Your task to perform on an android device: check the backup settings in the google photos Image 0: 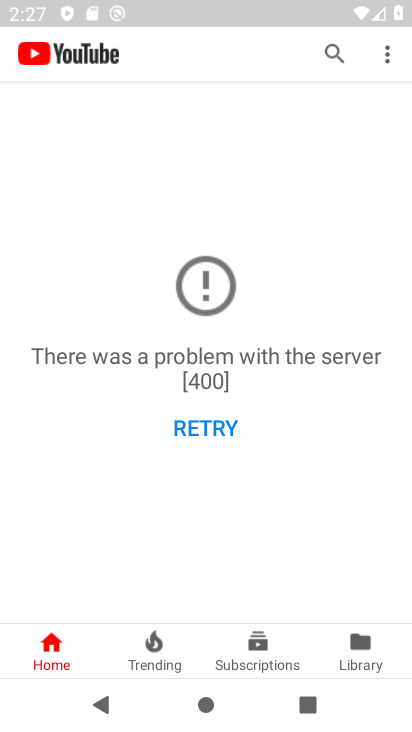
Step 0: press home button
Your task to perform on an android device: check the backup settings in the google photos Image 1: 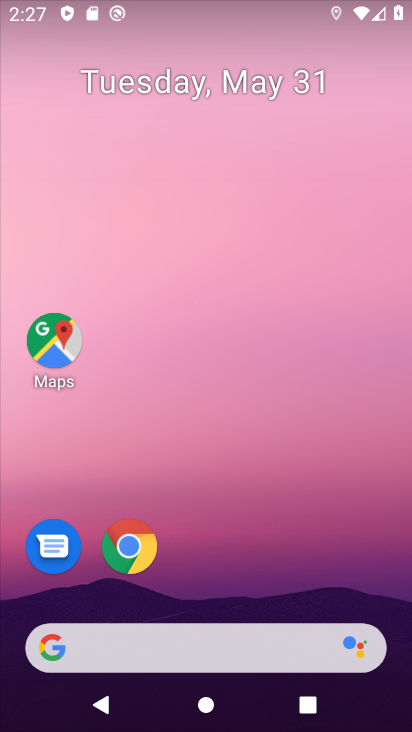
Step 1: drag from (246, 540) to (281, 129)
Your task to perform on an android device: check the backup settings in the google photos Image 2: 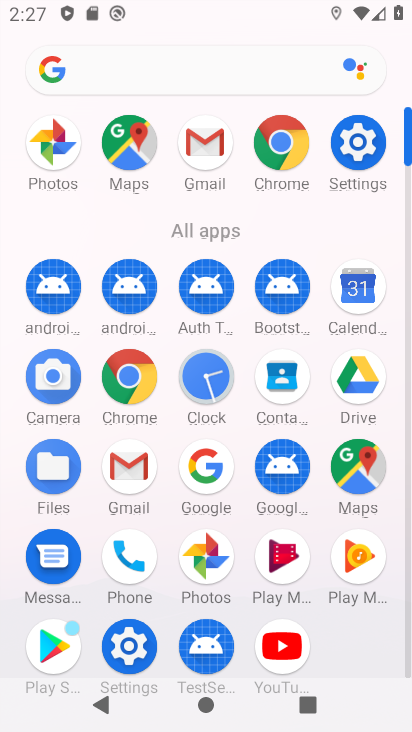
Step 2: click (53, 129)
Your task to perform on an android device: check the backup settings in the google photos Image 3: 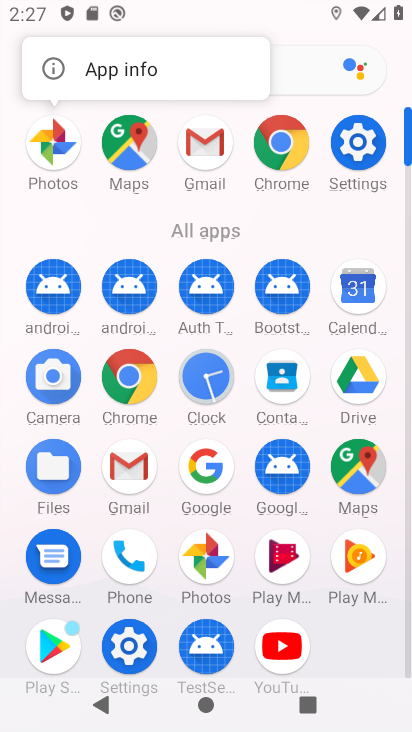
Step 3: click (48, 146)
Your task to perform on an android device: check the backup settings in the google photos Image 4: 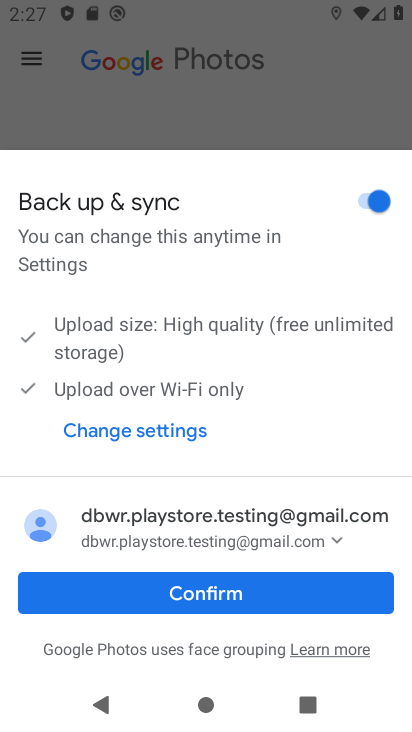
Step 4: click (233, 591)
Your task to perform on an android device: check the backup settings in the google photos Image 5: 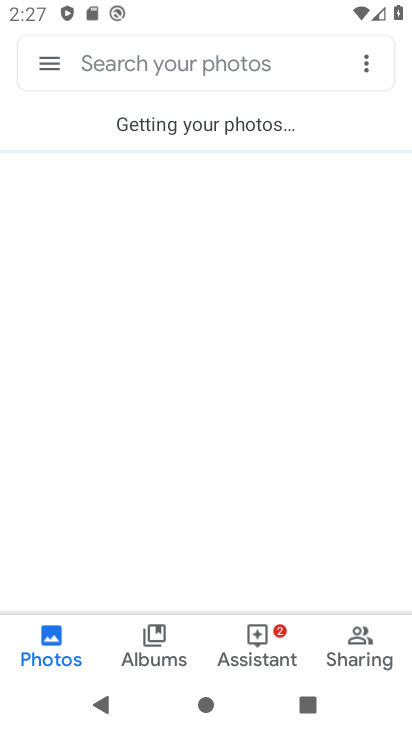
Step 5: click (54, 54)
Your task to perform on an android device: check the backup settings in the google photos Image 6: 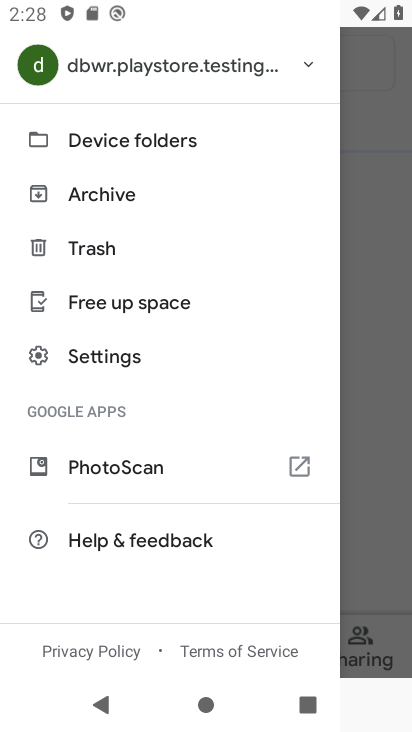
Step 6: click (84, 341)
Your task to perform on an android device: check the backup settings in the google photos Image 7: 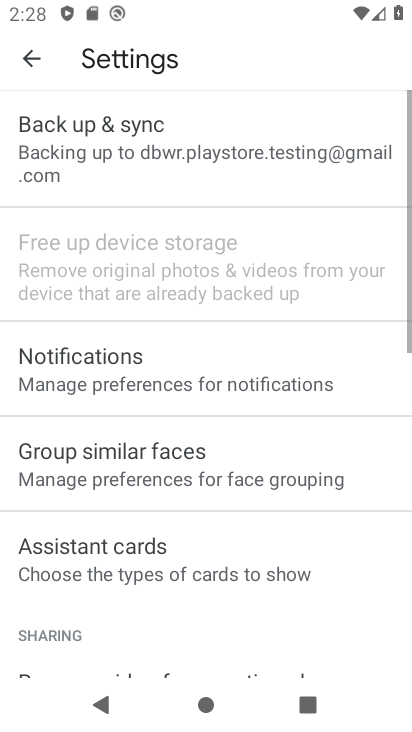
Step 7: click (206, 145)
Your task to perform on an android device: check the backup settings in the google photos Image 8: 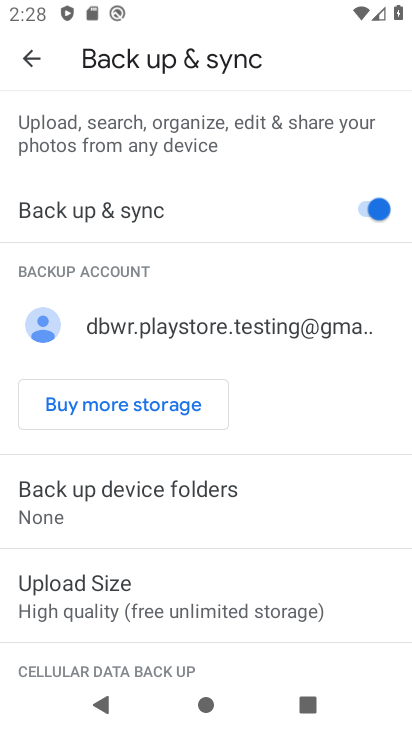
Step 8: task complete